Your task to perform on an android device: turn off priority inbox in the gmail app Image 0: 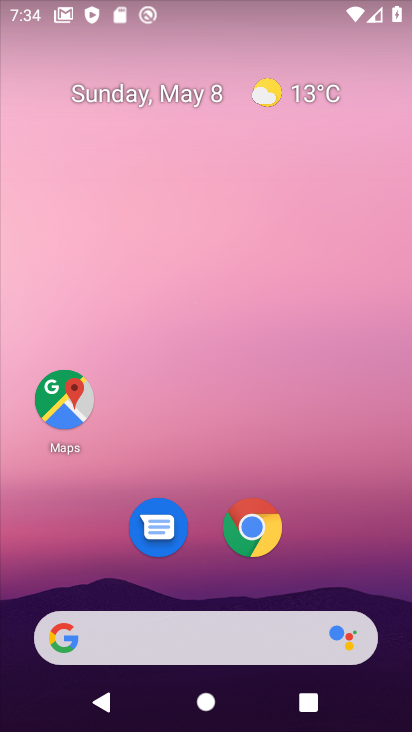
Step 0: drag from (341, 580) to (324, 24)
Your task to perform on an android device: turn off priority inbox in the gmail app Image 1: 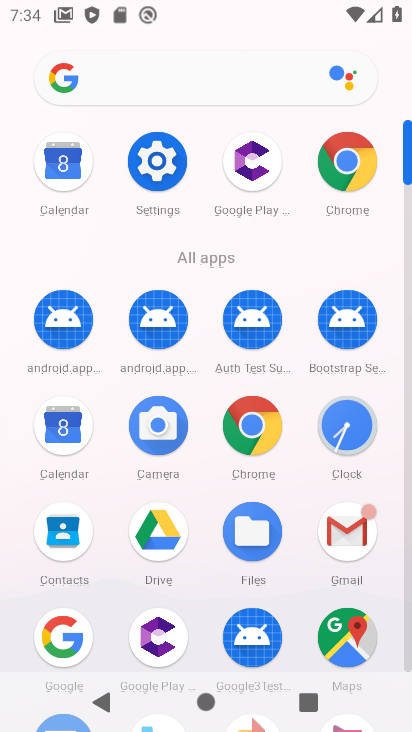
Step 1: click (362, 533)
Your task to perform on an android device: turn off priority inbox in the gmail app Image 2: 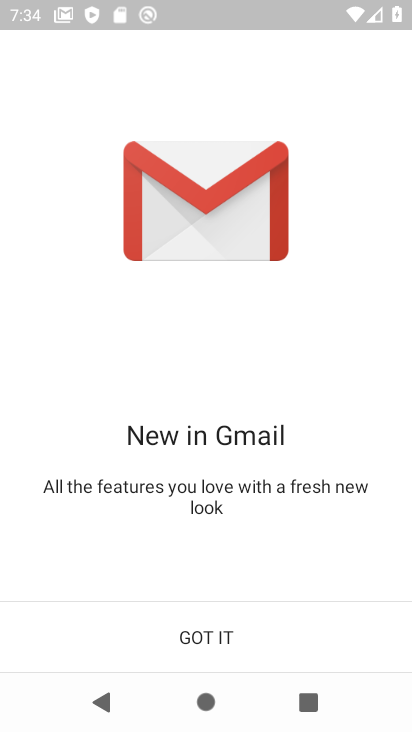
Step 2: click (223, 645)
Your task to perform on an android device: turn off priority inbox in the gmail app Image 3: 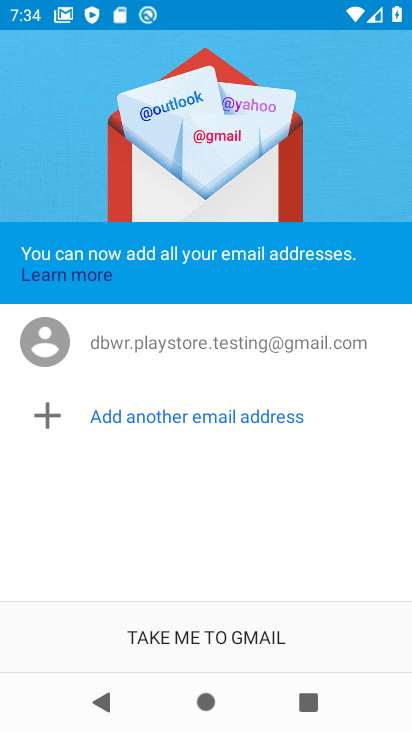
Step 3: click (223, 644)
Your task to perform on an android device: turn off priority inbox in the gmail app Image 4: 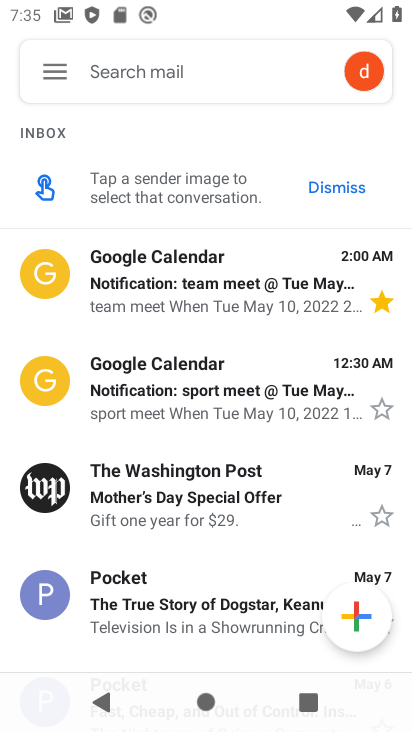
Step 4: click (39, 71)
Your task to perform on an android device: turn off priority inbox in the gmail app Image 5: 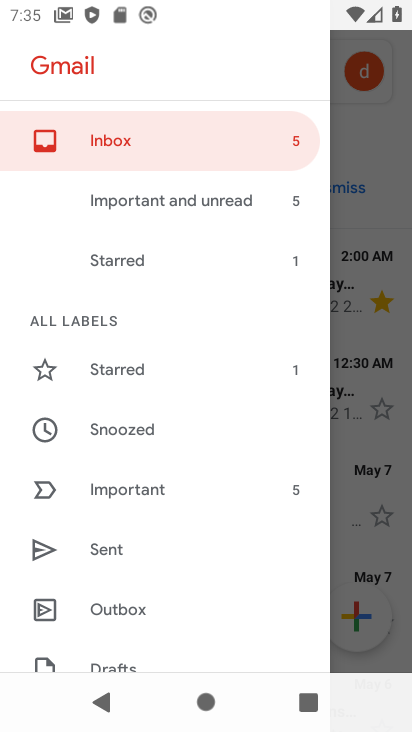
Step 5: drag from (130, 587) to (188, 256)
Your task to perform on an android device: turn off priority inbox in the gmail app Image 6: 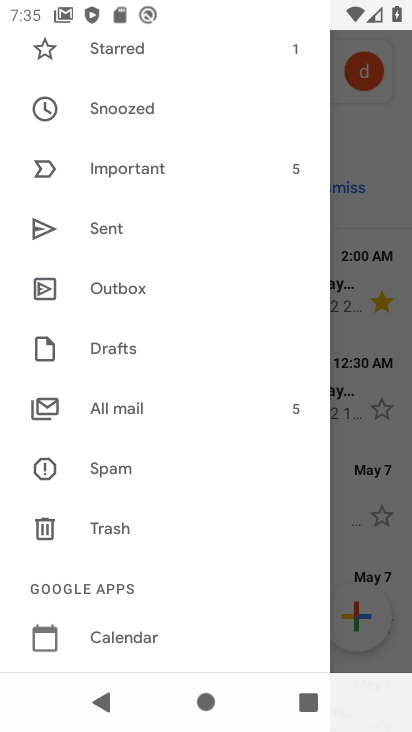
Step 6: drag from (169, 554) to (213, 244)
Your task to perform on an android device: turn off priority inbox in the gmail app Image 7: 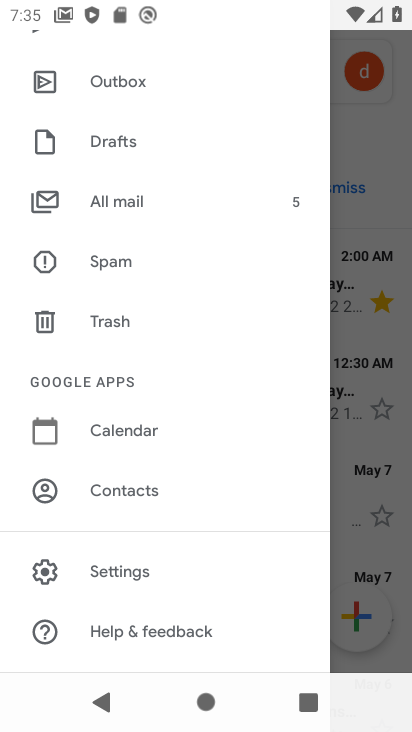
Step 7: click (125, 575)
Your task to perform on an android device: turn off priority inbox in the gmail app Image 8: 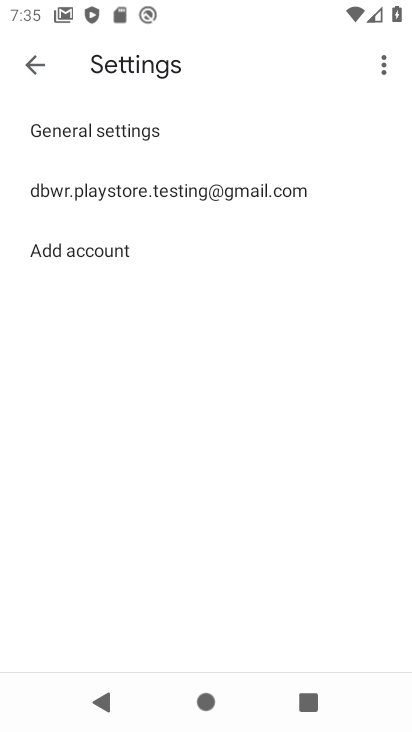
Step 8: click (59, 193)
Your task to perform on an android device: turn off priority inbox in the gmail app Image 9: 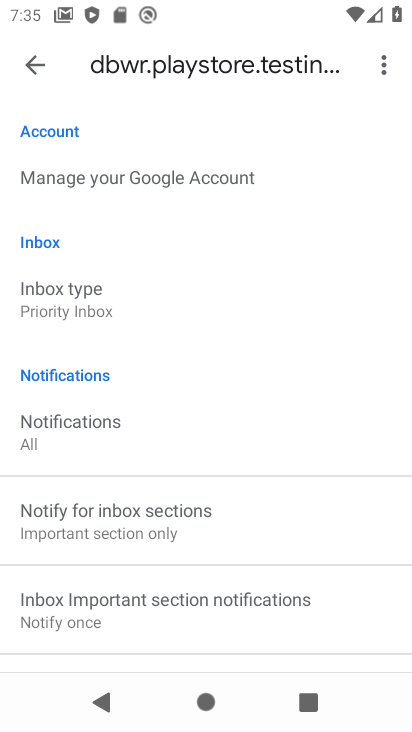
Step 9: click (41, 292)
Your task to perform on an android device: turn off priority inbox in the gmail app Image 10: 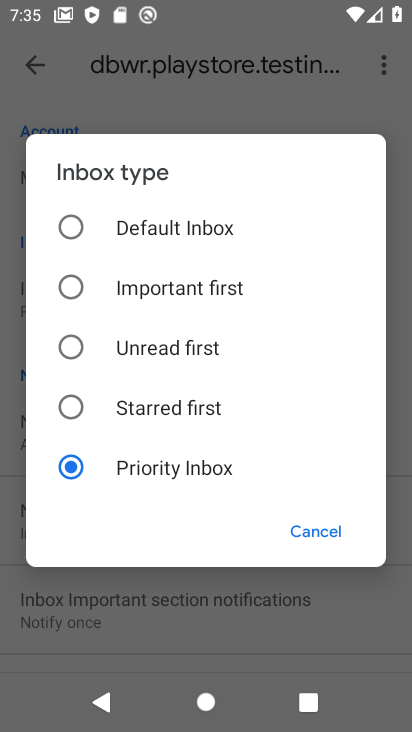
Step 10: click (79, 222)
Your task to perform on an android device: turn off priority inbox in the gmail app Image 11: 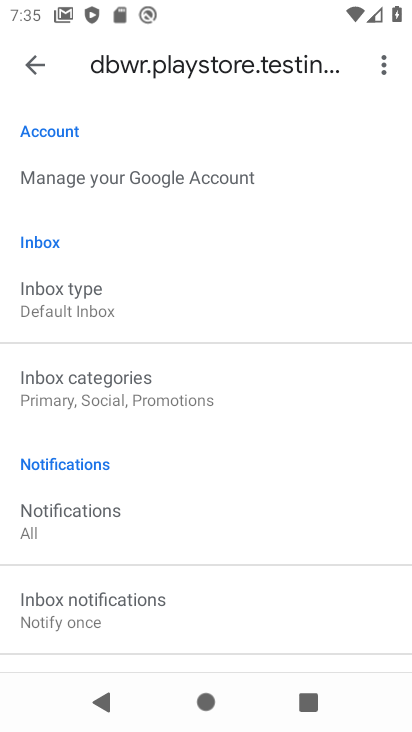
Step 11: task complete